Your task to perform on an android device: Go to notification settings Image 0: 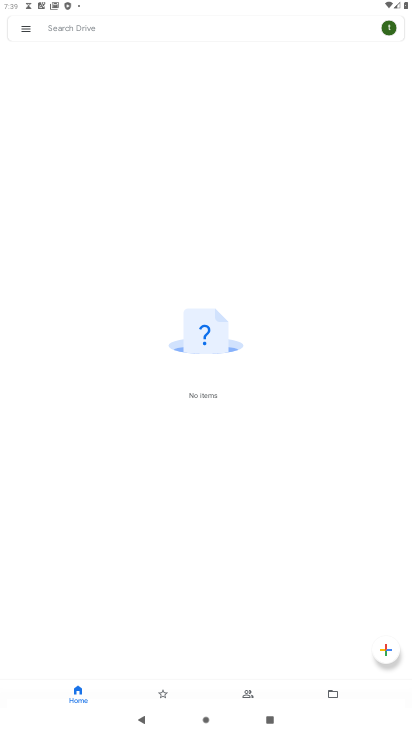
Step 0: press home button
Your task to perform on an android device: Go to notification settings Image 1: 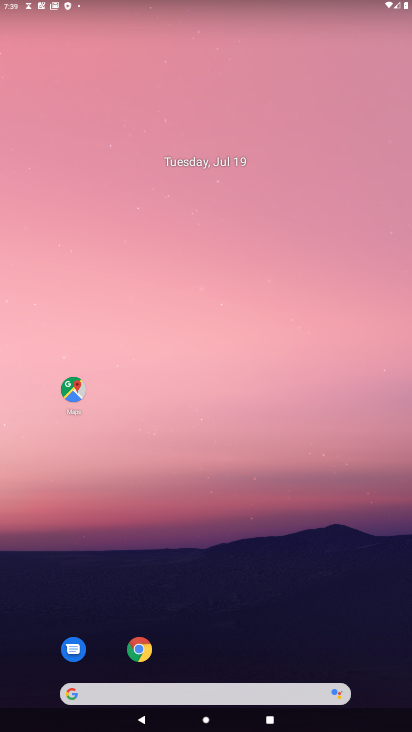
Step 1: drag from (179, 699) to (250, 216)
Your task to perform on an android device: Go to notification settings Image 2: 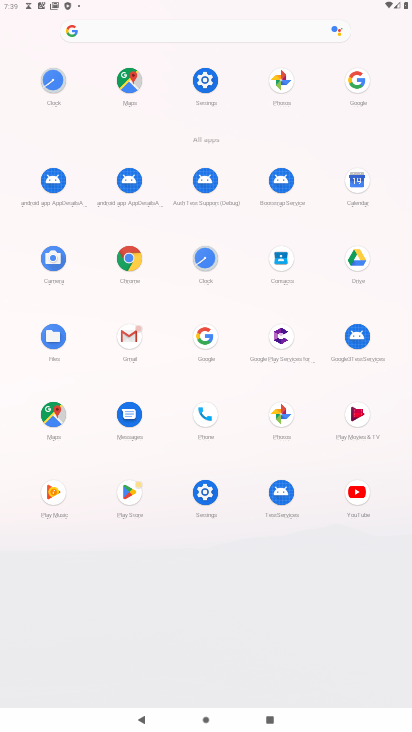
Step 2: click (206, 79)
Your task to perform on an android device: Go to notification settings Image 3: 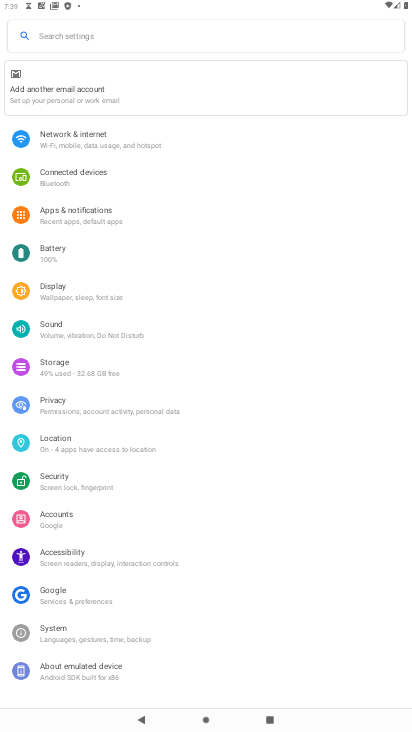
Step 3: click (66, 213)
Your task to perform on an android device: Go to notification settings Image 4: 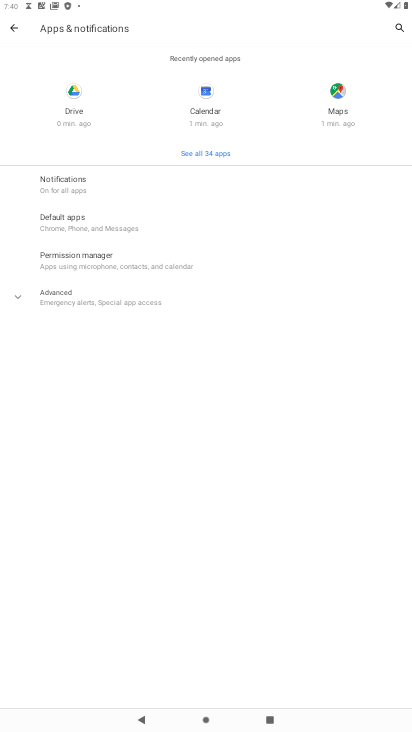
Step 4: click (69, 174)
Your task to perform on an android device: Go to notification settings Image 5: 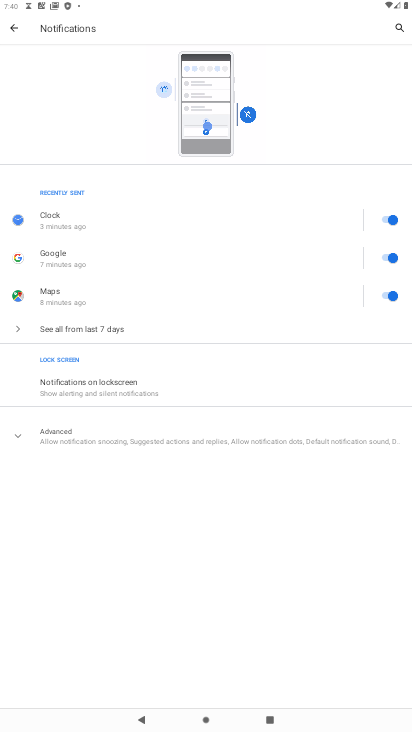
Step 5: task complete